Your task to perform on an android device: Go to location settings Image 0: 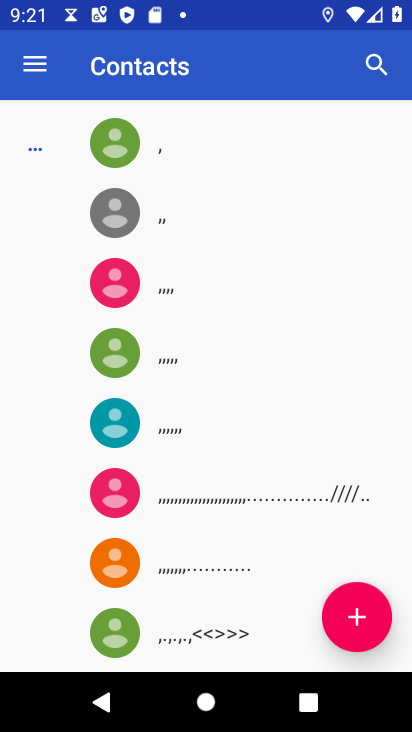
Step 0: press back button
Your task to perform on an android device: Go to location settings Image 1: 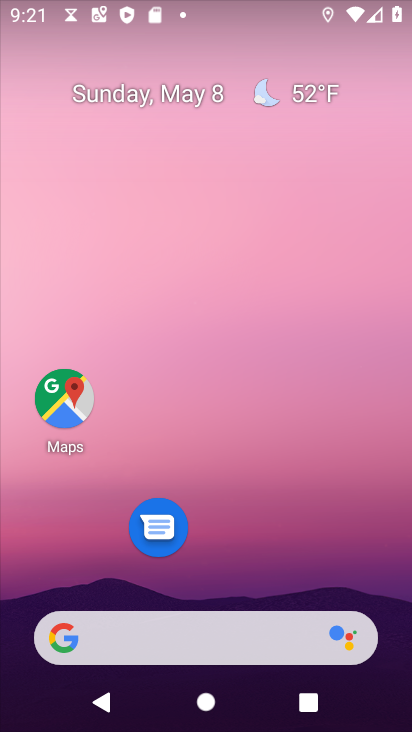
Step 1: drag from (264, 562) to (224, 64)
Your task to perform on an android device: Go to location settings Image 2: 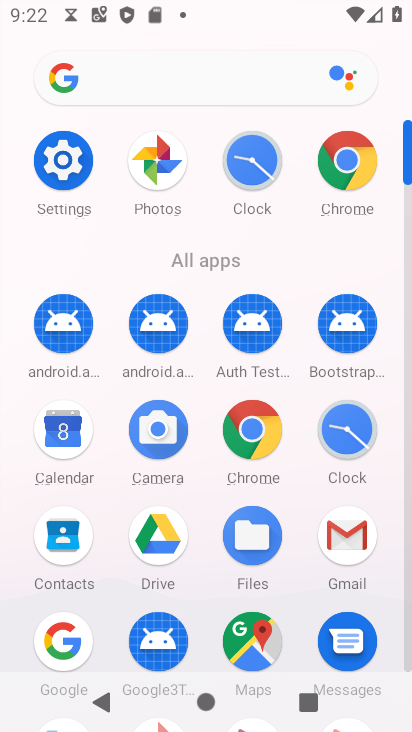
Step 2: click (61, 162)
Your task to perform on an android device: Go to location settings Image 3: 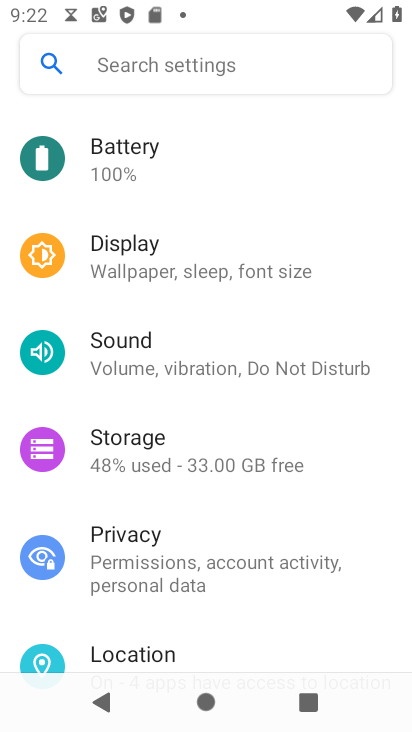
Step 3: drag from (226, 437) to (260, 327)
Your task to perform on an android device: Go to location settings Image 4: 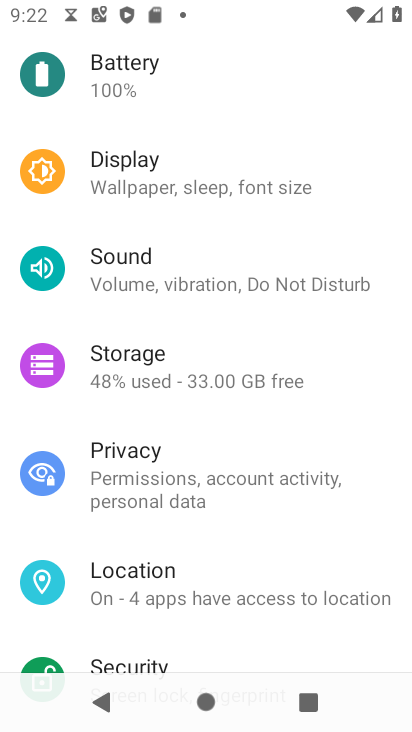
Step 4: drag from (231, 543) to (257, 350)
Your task to perform on an android device: Go to location settings Image 5: 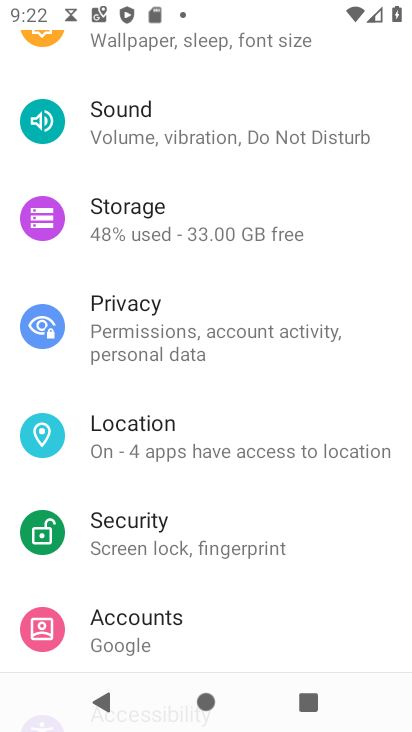
Step 5: click (160, 423)
Your task to perform on an android device: Go to location settings Image 6: 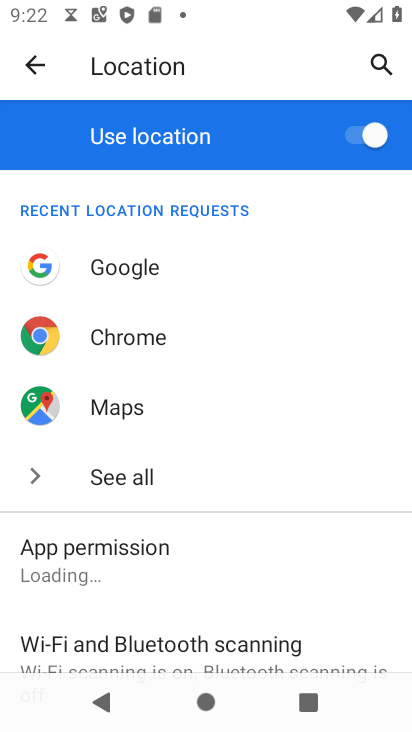
Step 6: task complete